Your task to perform on an android device: turn notification dots on Image 0: 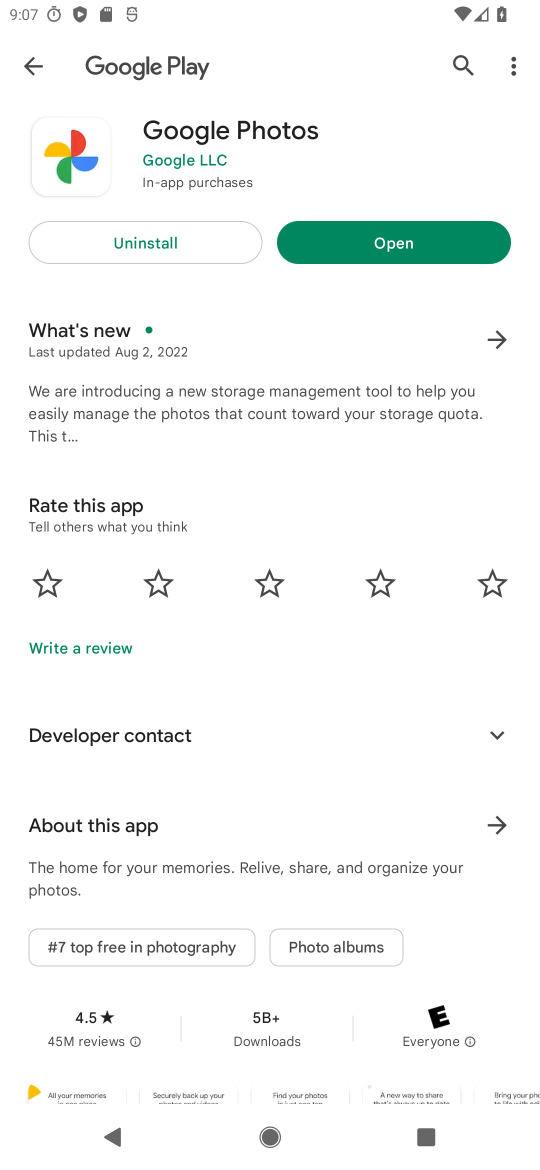
Step 0: press home button
Your task to perform on an android device: turn notification dots on Image 1: 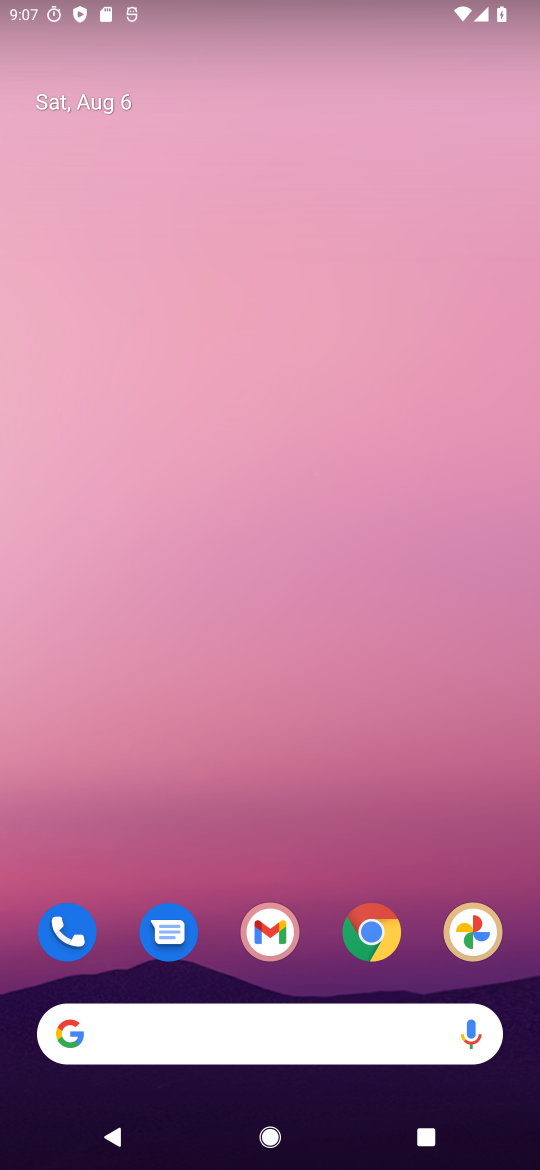
Step 1: drag from (234, 1033) to (269, 318)
Your task to perform on an android device: turn notification dots on Image 2: 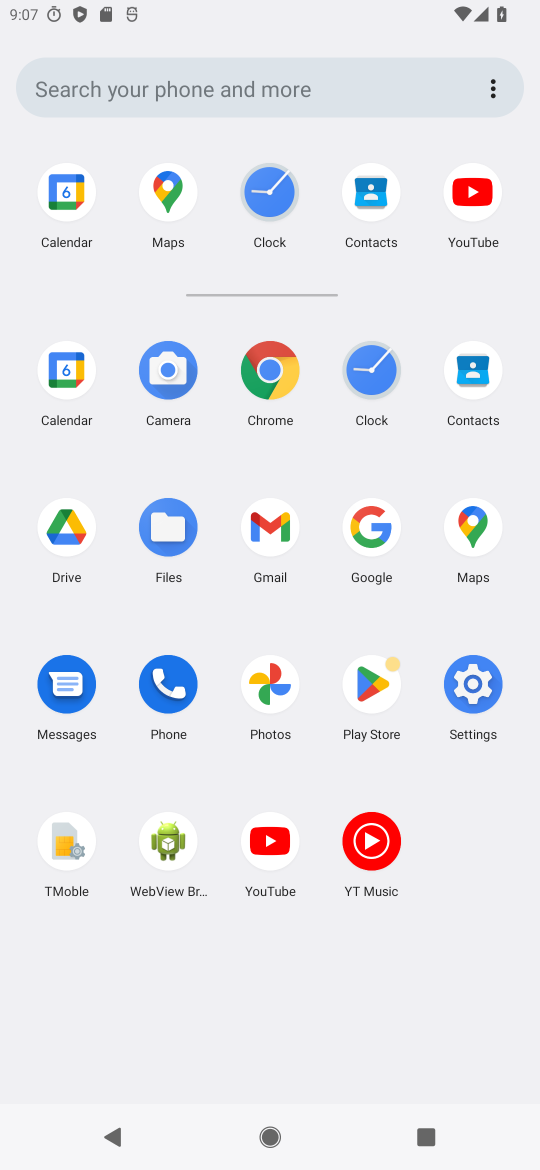
Step 2: click (474, 682)
Your task to perform on an android device: turn notification dots on Image 3: 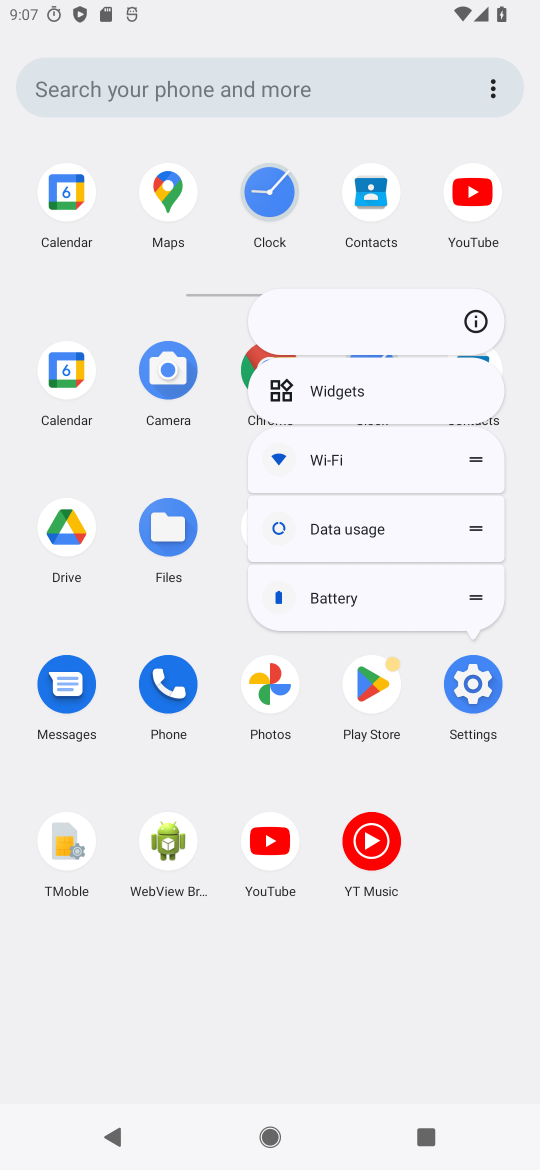
Step 3: click (474, 681)
Your task to perform on an android device: turn notification dots on Image 4: 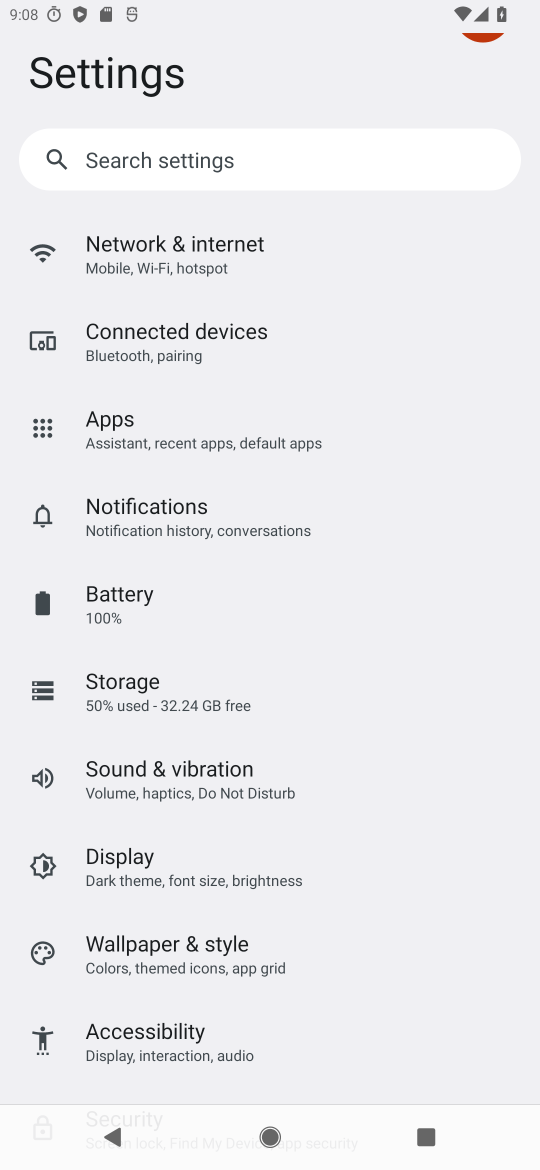
Step 4: click (201, 501)
Your task to perform on an android device: turn notification dots on Image 5: 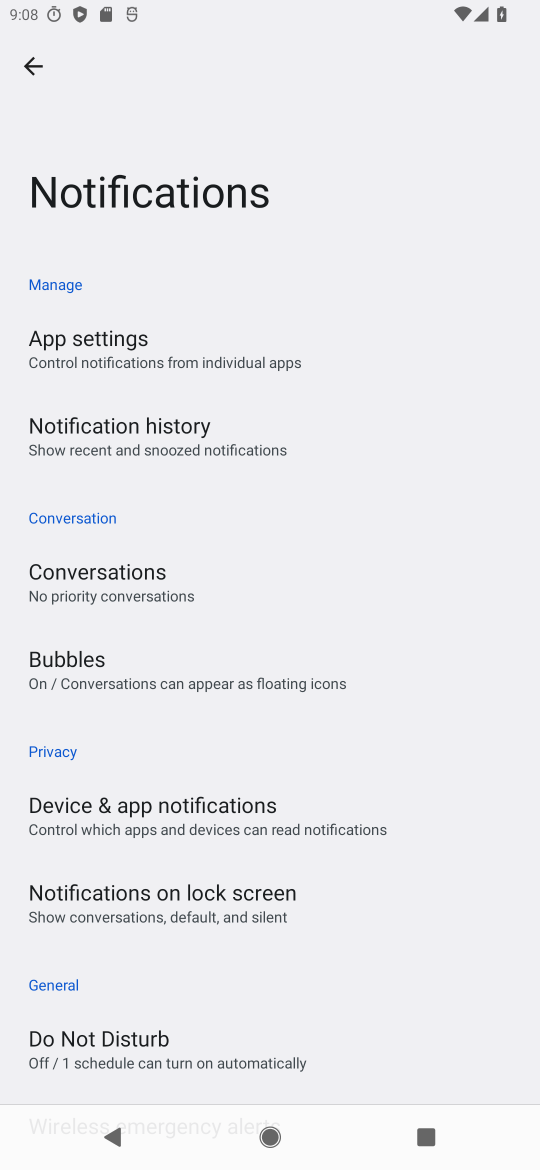
Step 5: task complete